Your task to perform on an android device: Go to Yahoo.com Image 0: 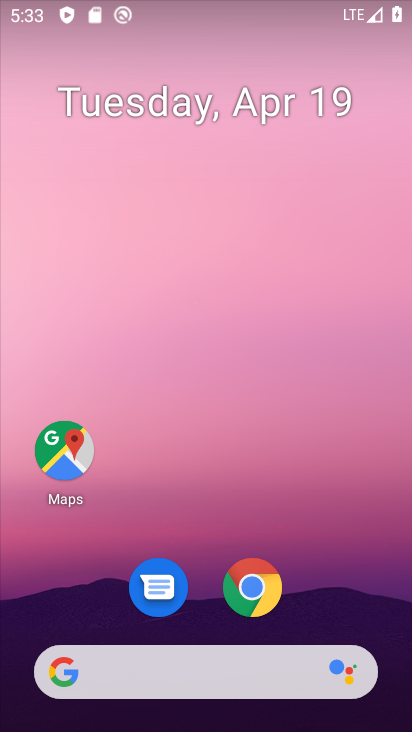
Step 0: click (265, 573)
Your task to perform on an android device: Go to Yahoo.com Image 1: 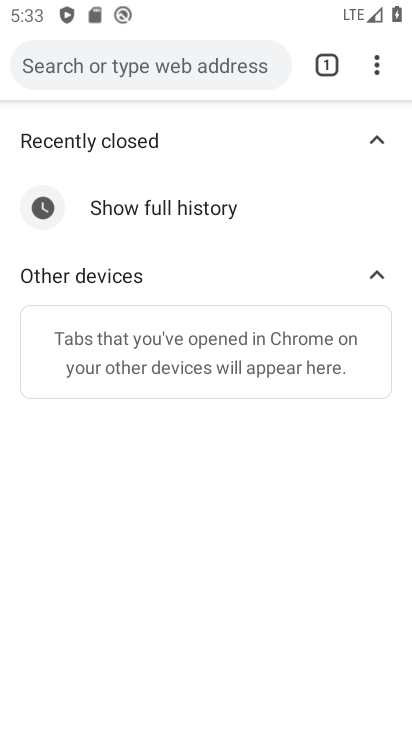
Step 1: click (265, 573)
Your task to perform on an android device: Go to Yahoo.com Image 2: 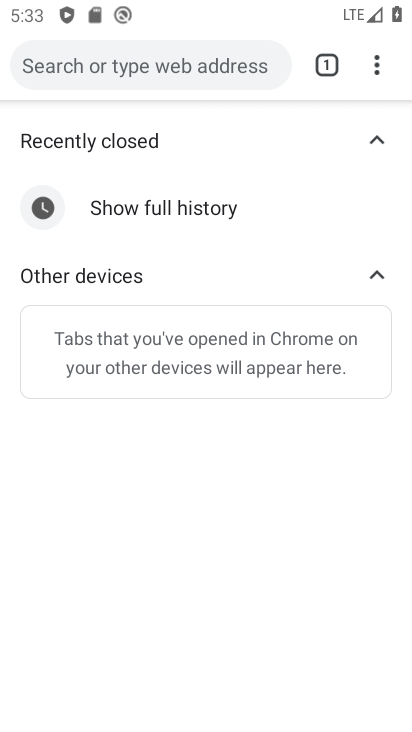
Step 2: click (344, 64)
Your task to perform on an android device: Go to Yahoo.com Image 3: 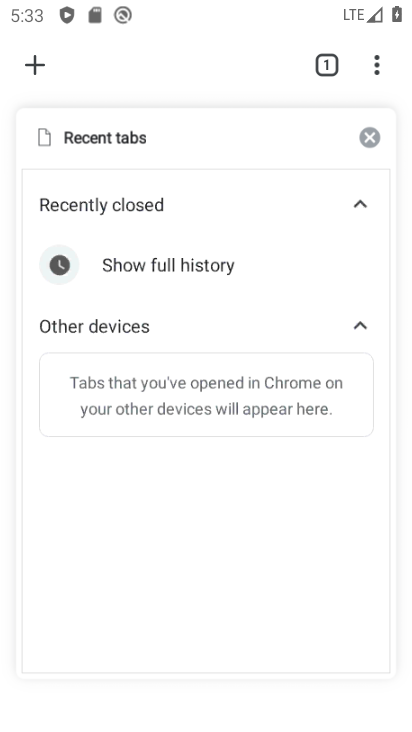
Step 3: click (49, 79)
Your task to perform on an android device: Go to Yahoo.com Image 4: 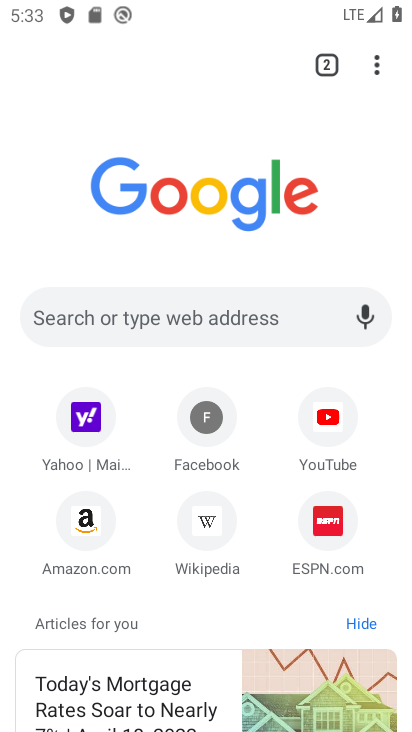
Step 4: click (85, 415)
Your task to perform on an android device: Go to Yahoo.com Image 5: 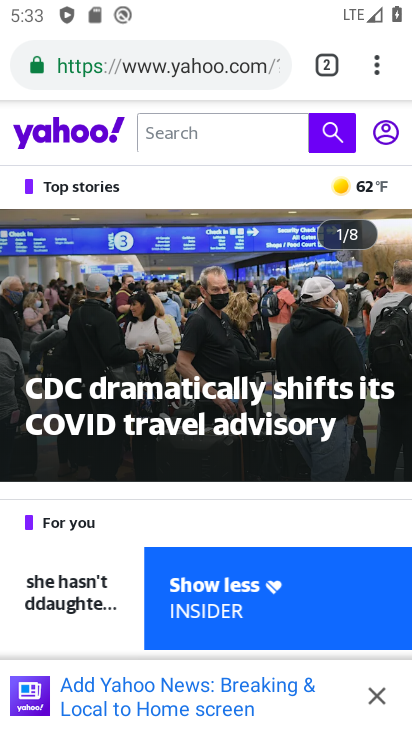
Step 5: task complete